Your task to perform on an android device: manage bookmarks in the chrome app Image 0: 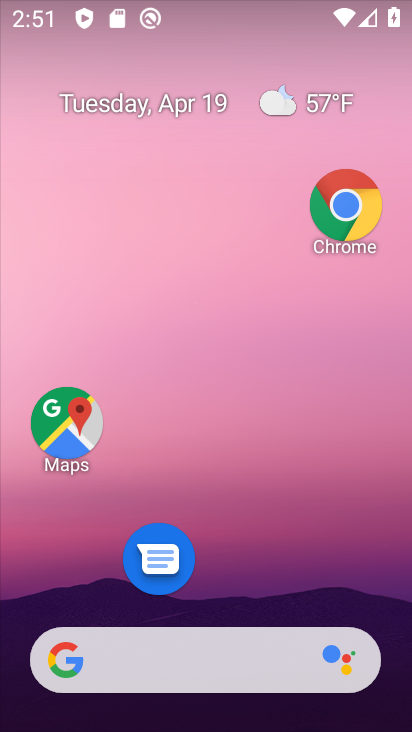
Step 0: drag from (131, 544) to (200, 143)
Your task to perform on an android device: manage bookmarks in the chrome app Image 1: 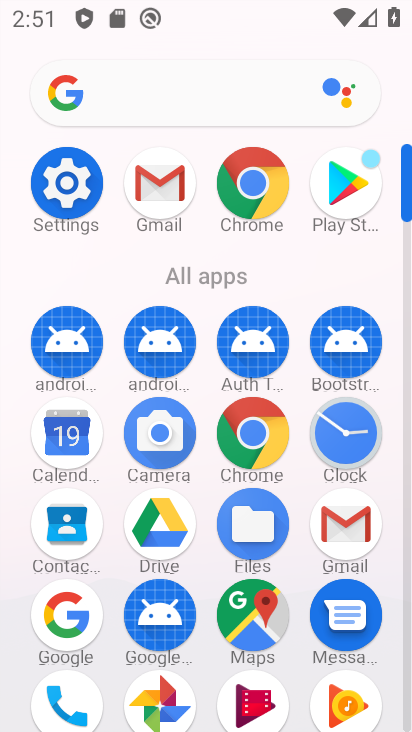
Step 1: click (242, 439)
Your task to perform on an android device: manage bookmarks in the chrome app Image 2: 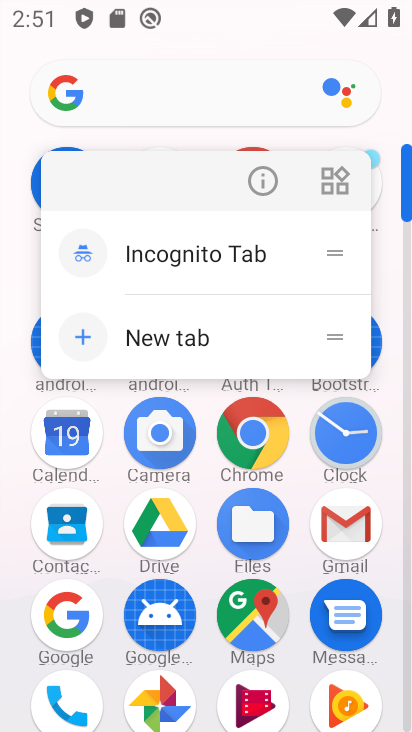
Step 2: click (259, 184)
Your task to perform on an android device: manage bookmarks in the chrome app Image 3: 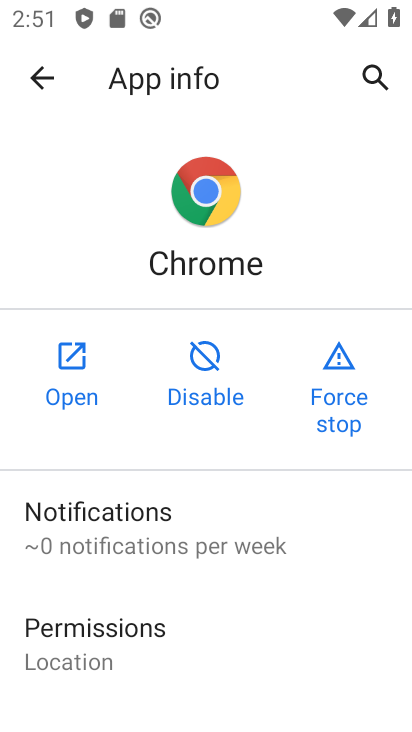
Step 3: click (65, 368)
Your task to perform on an android device: manage bookmarks in the chrome app Image 4: 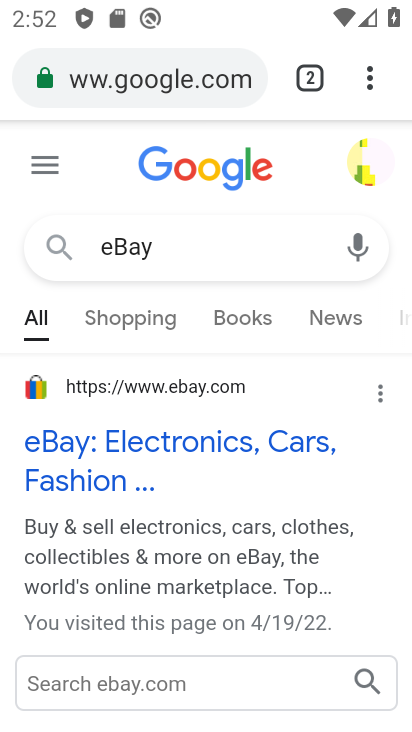
Step 4: click (381, 70)
Your task to perform on an android device: manage bookmarks in the chrome app Image 5: 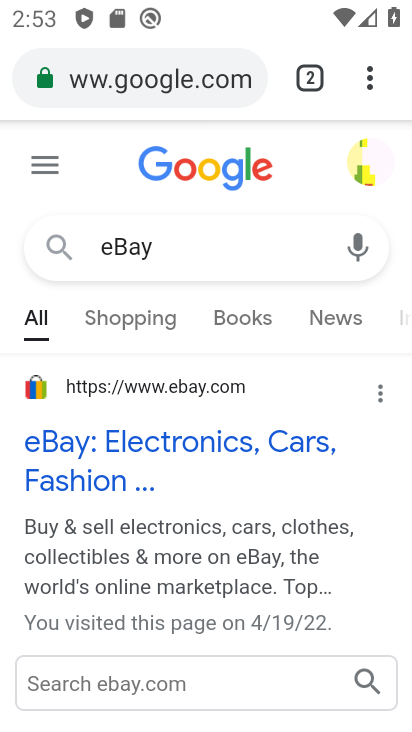
Step 5: click (373, 74)
Your task to perform on an android device: manage bookmarks in the chrome app Image 6: 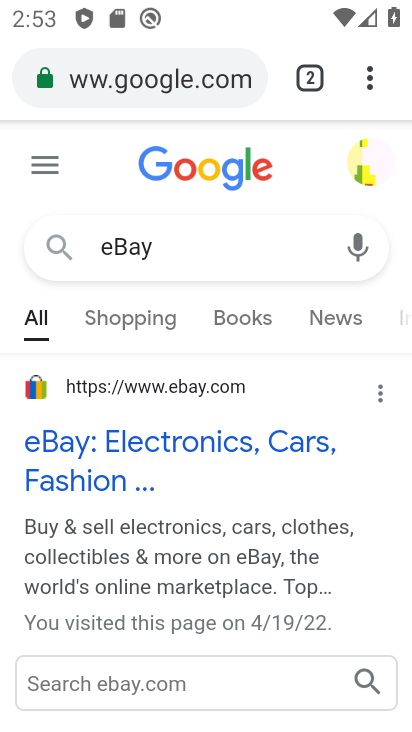
Step 6: click (373, 71)
Your task to perform on an android device: manage bookmarks in the chrome app Image 7: 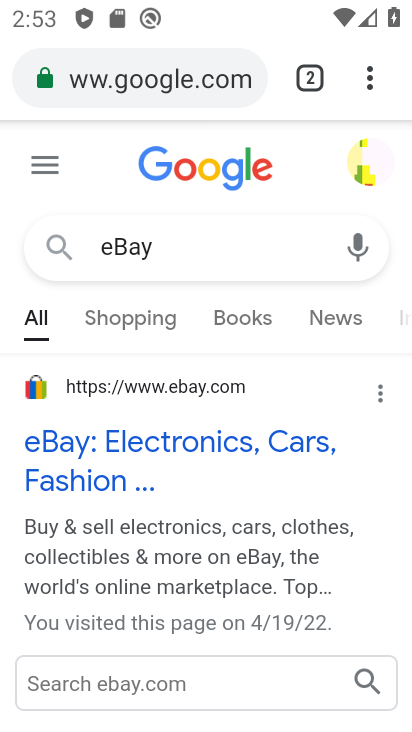
Step 7: click (373, 84)
Your task to perform on an android device: manage bookmarks in the chrome app Image 8: 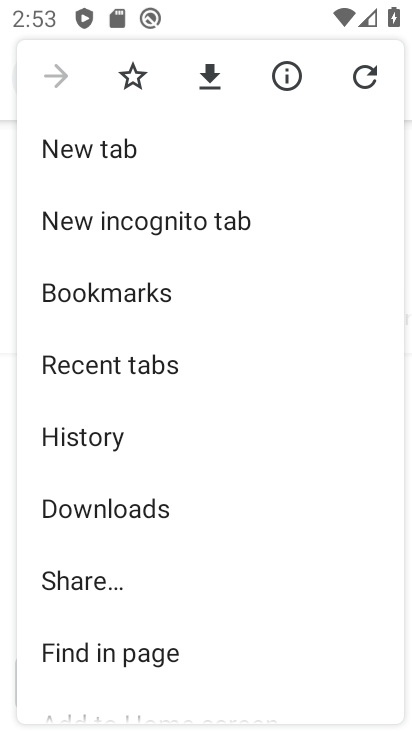
Step 8: click (142, 291)
Your task to perform on an android device: manage bookmarks in the chrome app Image 9: 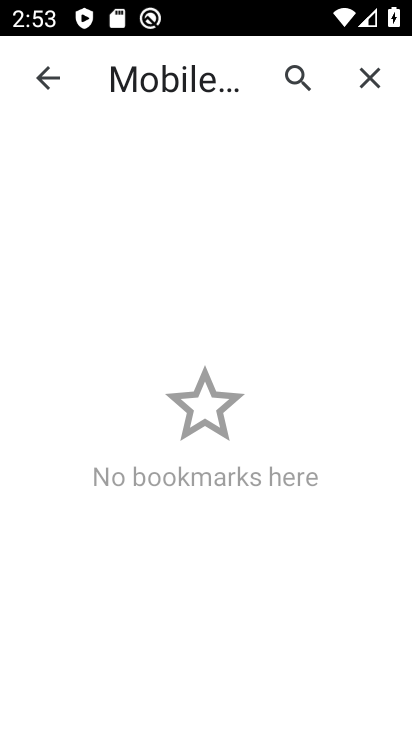
Step 9: task complete